Your task to perform on an android device: Open ESPN.com Image 0: 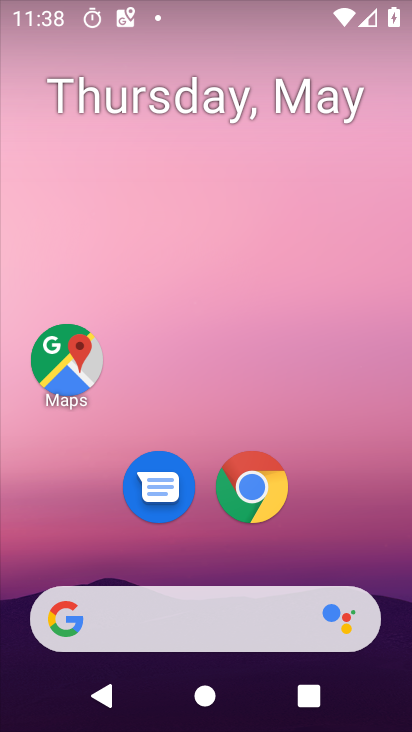
Step 0: click (258, 485)
Your task to perform on an android device: Open ESPN.com Image 1: 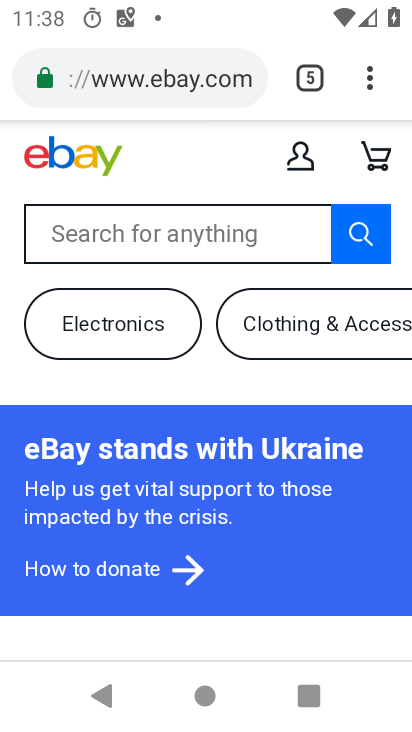
Step 1: click (311, 81)
Your task to perform on an android device: Open ESPN.com Image 2: 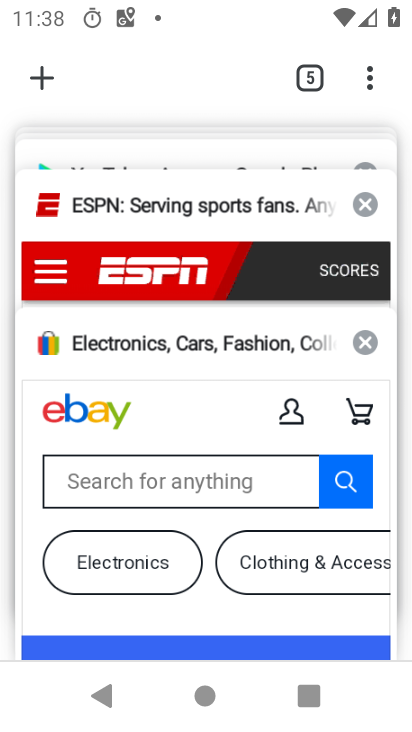
Step 2: click (193, 267)
Your task to perform on an android device: Open ESPN.com Image 3: 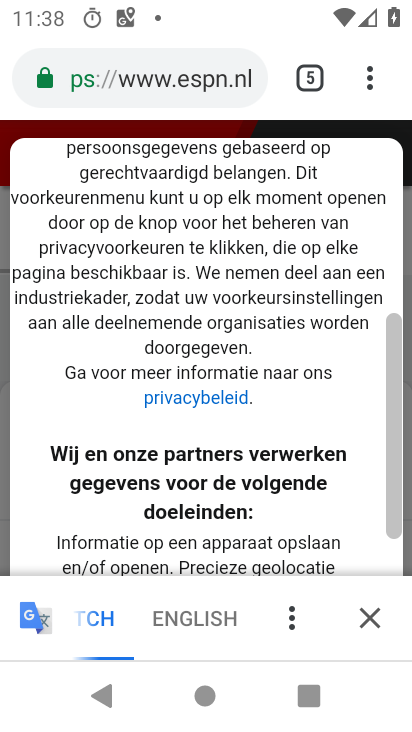
Step 3: task complete